Your task to perform on an android device: all mails in gmail Image 0: 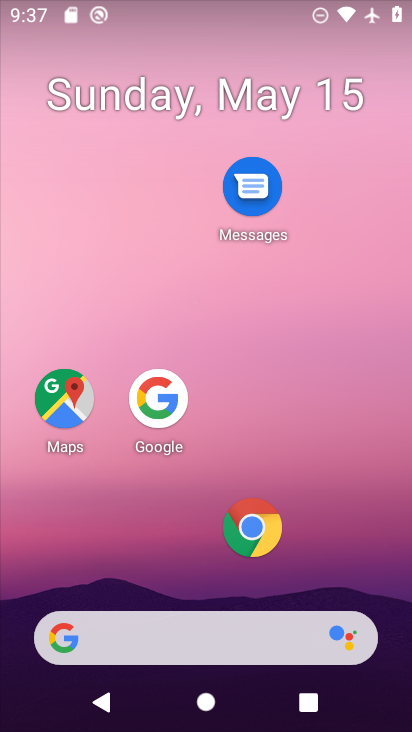
Step 0: drag from (149, 630) to (300, 118)
Your task to perform on an android device: all mails in gmail Image 1: 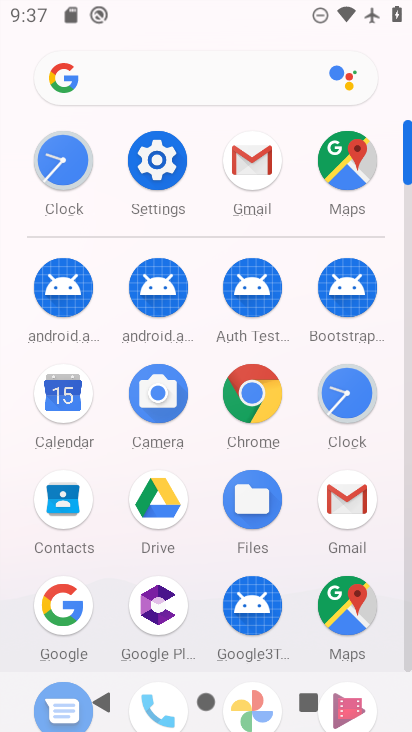
Step 1: click (349, 505)
Your task to perform on an android device: all mails in gmail Image 2: 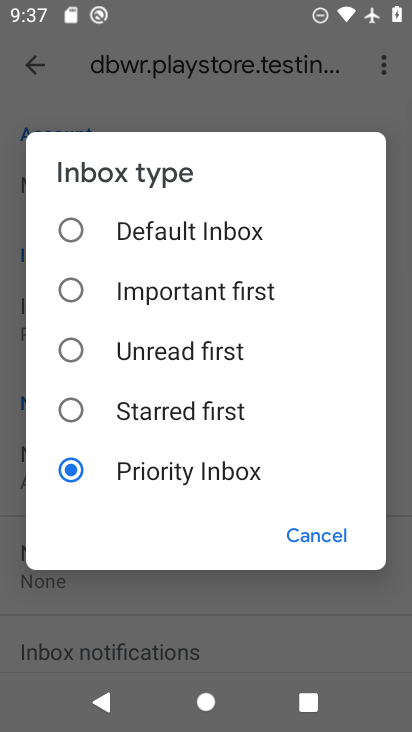
Step 2: click (316, 535)
Your task to perform on an android device: all mails in gmail Image 3: 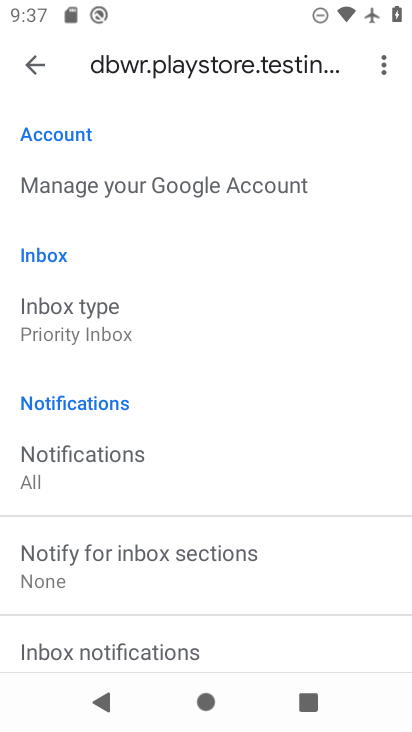
Step 3: click (24, 64)
Your task to perform on an android device: all mails in gmail Image 4: 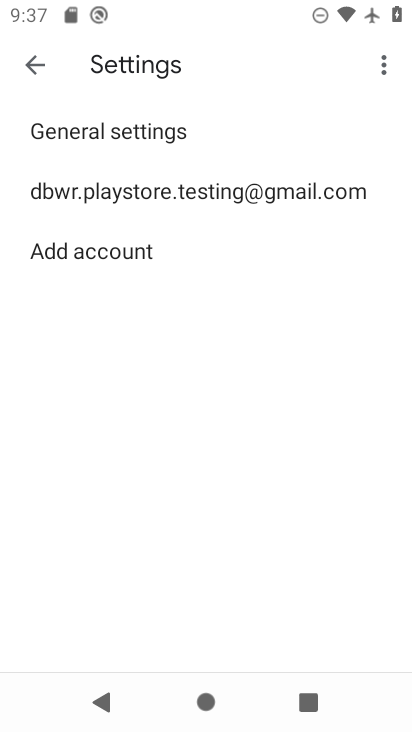
Step 4: click (24, 63)
Your task to perform on an android device: all mails in gmail Image 5: 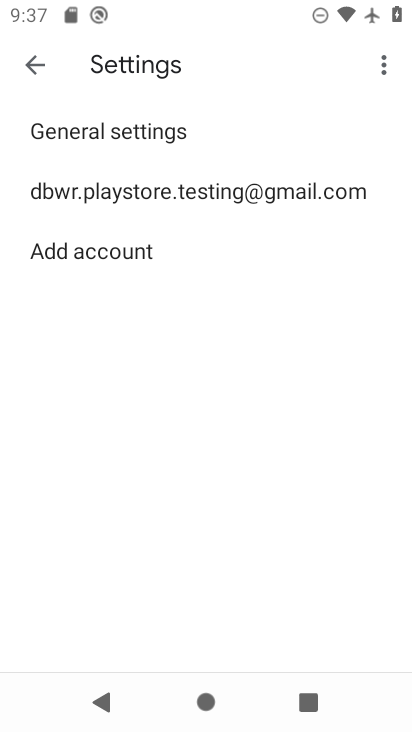
Step 5: click (36, 61)
Your task to perform on an android device: all mails in gmail Image 6: 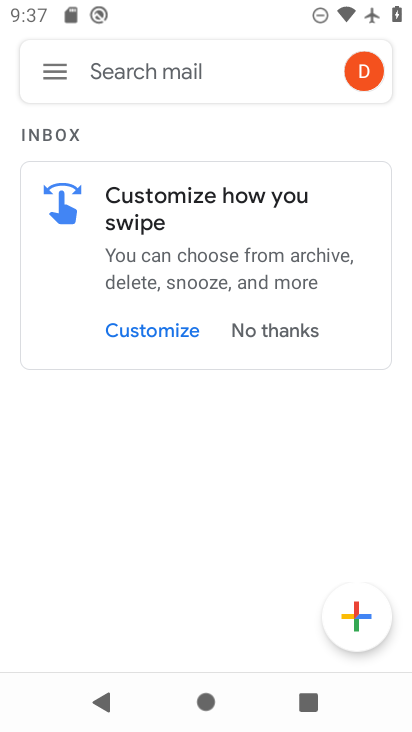
Step 6: click (50, 74)
Your task to perform on an android device: all mails in gmail Image 7: 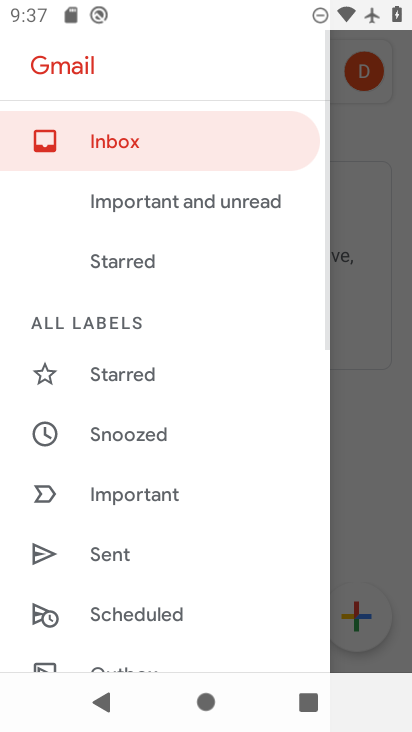
Step 7: drag from (170, 596) to (238, 272)
Your task to perform on an android device: all mails in gmail Image 8: 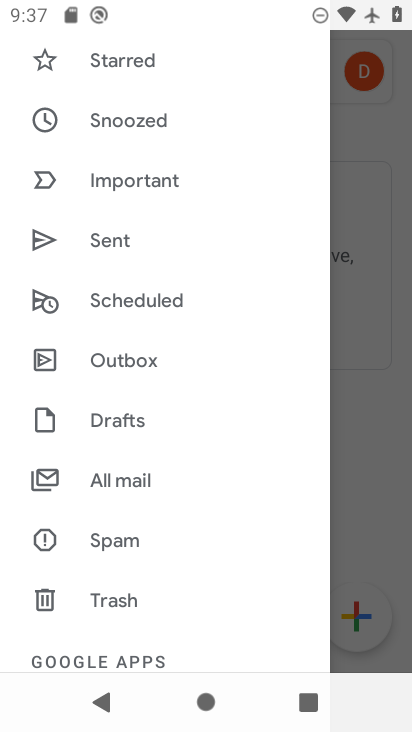
Step 8: click (130, 475)
Your task to perform on an android device: all mails in gmail Image 9: 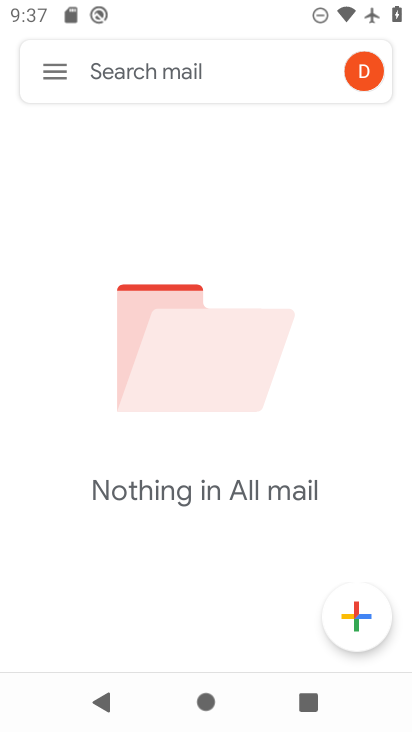
Step 9: task complete